Your task to perform on an android device: Go to location settings Image 0: 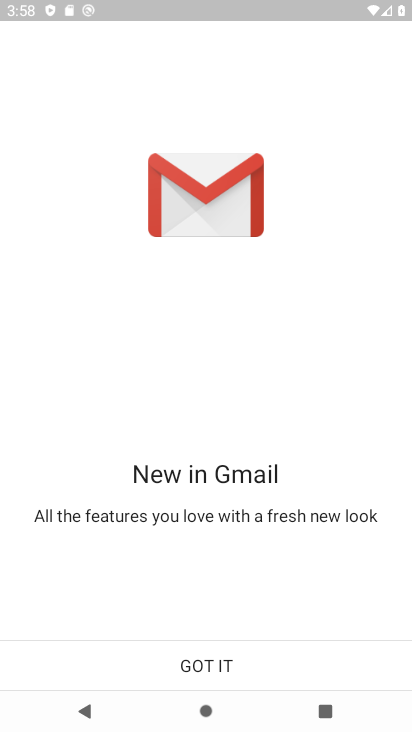
Step 0: press home button
Your task to perform on an android device: Go to location settings Image 1: 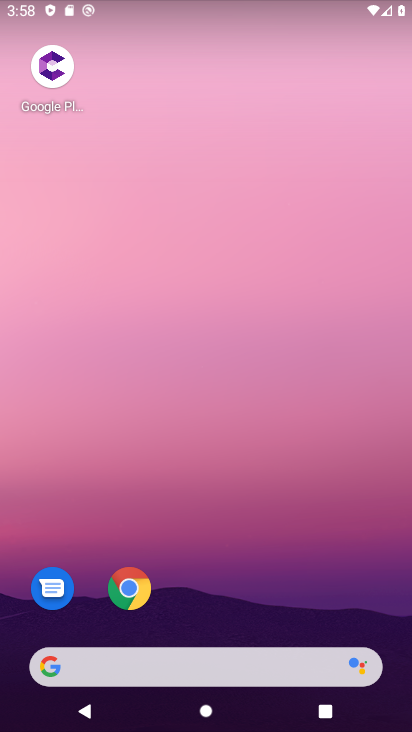
Step 1: drag from (16, 713) to (205, 38)
Your task to perform on an android device: Go to location settings Image 2: 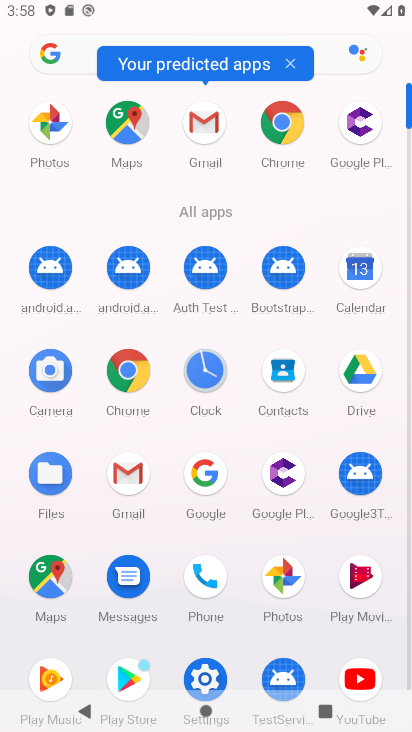
Step 2: click (203, 677)
Your task to perform on an android device: Go to location settings Image 3: 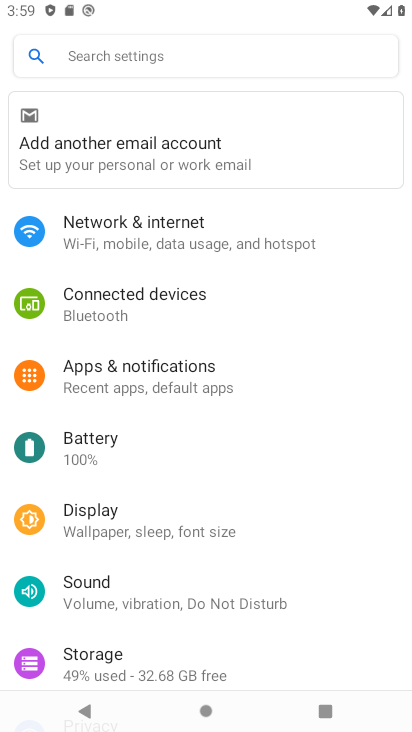
Step 3: drag from (181, 660) to (186, 87)
Your task to perform on an android device: Go to location settings Image 4: 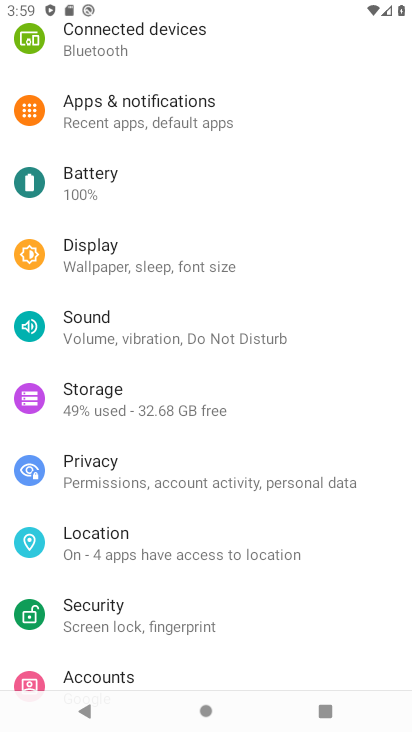
Step 4: click (129, 549)
Your task to perform on an android device: Go to location settings Image 5: 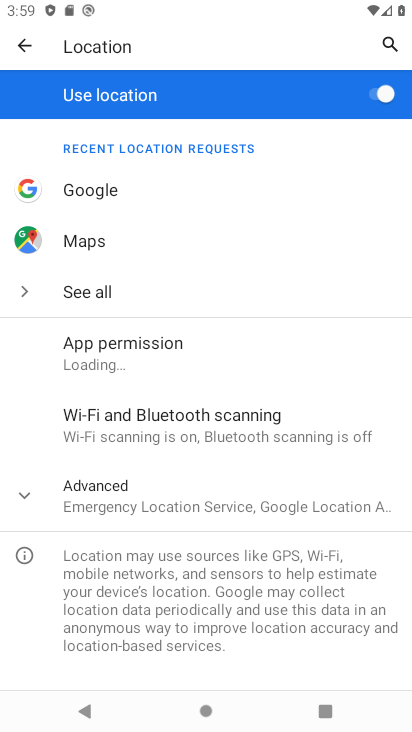
Step 5: task complete